Your task to perform on an android device: clear all cookies in the chrome app Image 0: 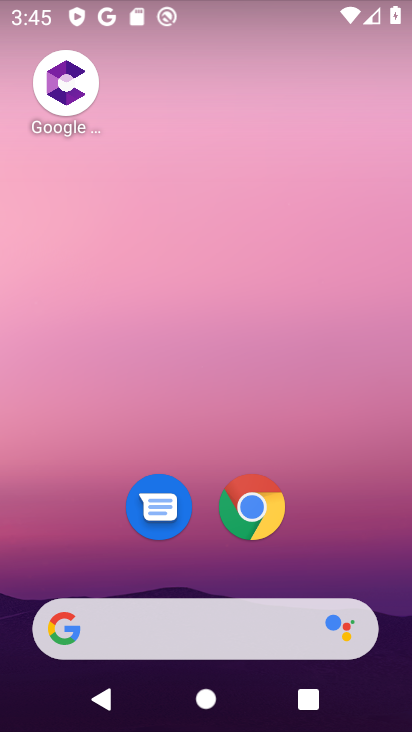
Step 0: click (255, 508)
Your task to perform on an android device: clear all cookies in the chrome app Image 1: 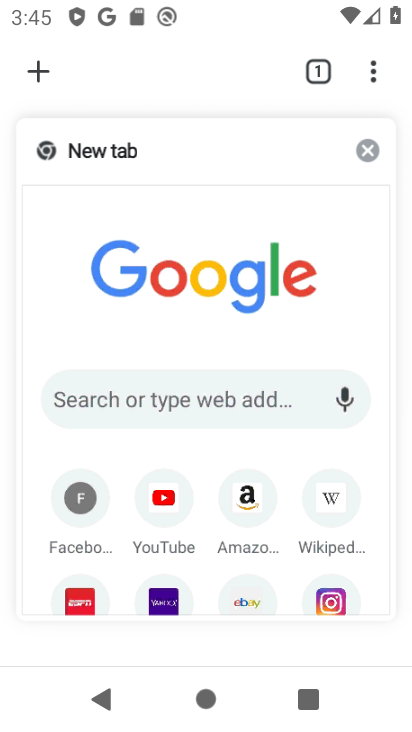
Step 1: press back button
Your task to perform on an android device: clear all cookies in the chrome app Image 2: 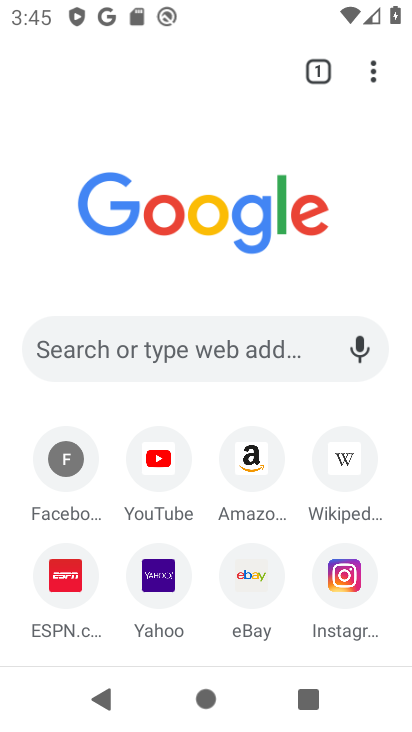
Step 2: click (365, 74)
Your task to perform on an android device: clear all cookies in the chrome app Image 3: 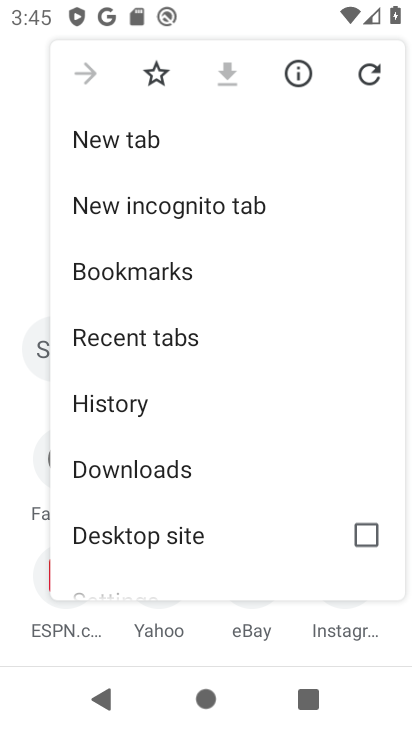
Step 3: click (113, 411)
Your task to perform on an android device: clear all cookies in the chrome app Image 4: 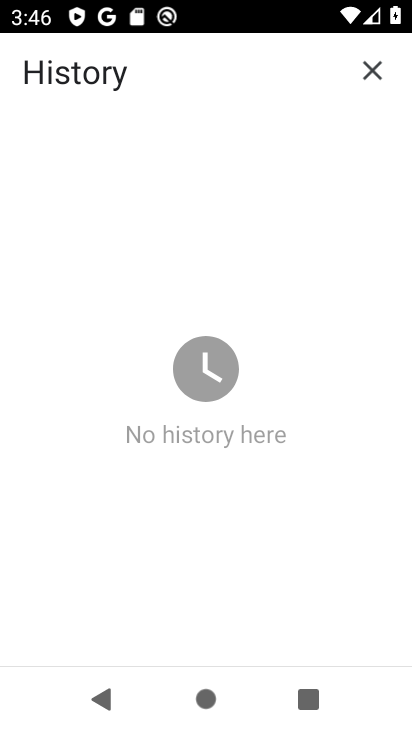
Step 4: task complete